Your task to perform on an android device: Open wifi settings Image 0: 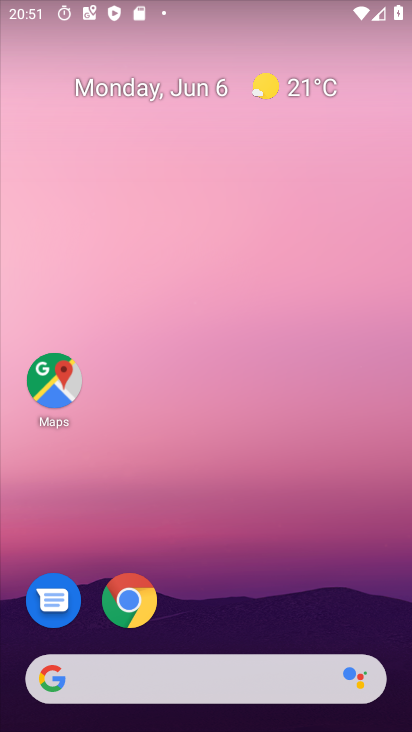
Step 0: drag from (266, 587) to (242, 27)
Your task to perform on an android device: Open wifi settings Image 1: 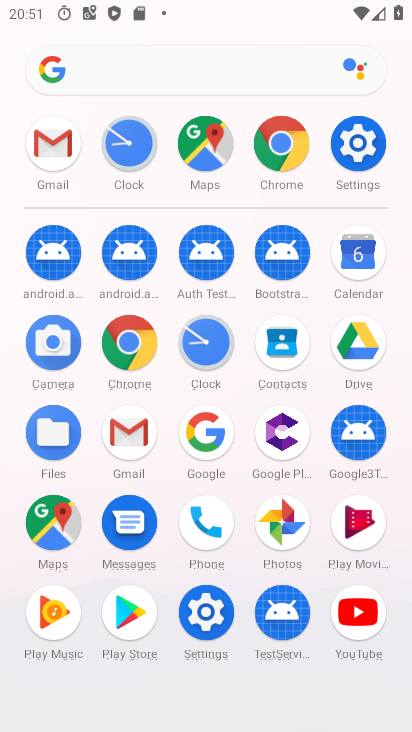
Step 1: click (202, 611)
Your task to perform on an android device: Open wifi settings Image 2: 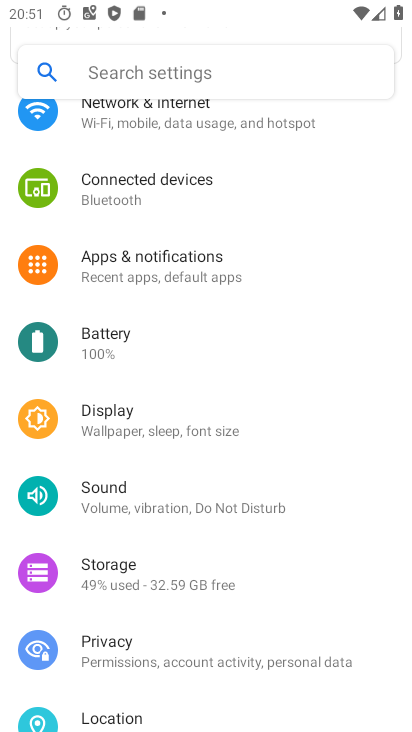
Step 2: drag from (299, 195) to (291, 609)
Your task to perform on an android device: Open wifi settings Image 3: 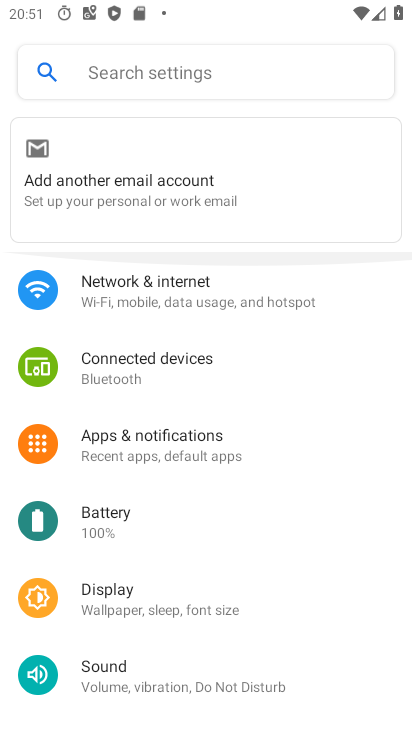
Step 3: click (221, 301)
Your task to perform on an android device: Open wifi settings Image 4: 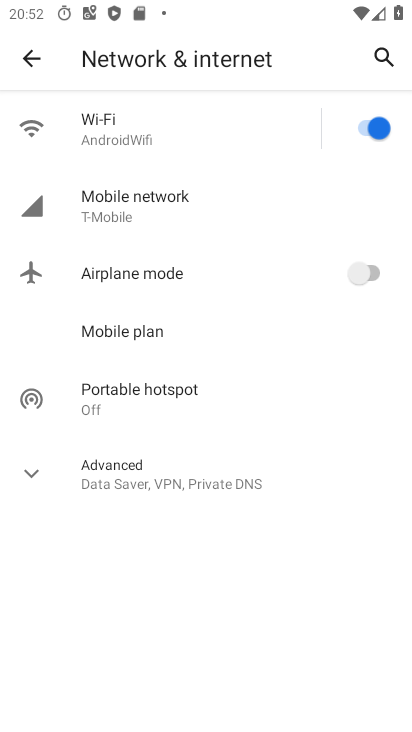
Step 4: click (31, 449)
Your task to perform on an android device: Open wifi settings Image 5: 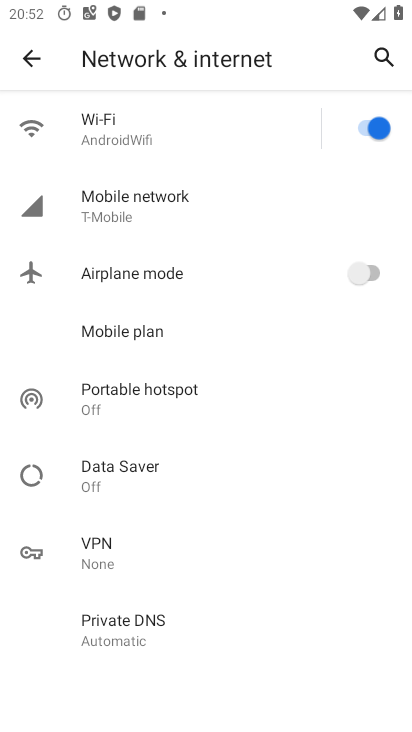
Step 5: click (170, 143)
Your task to perform on an android device: Open wifi settings Image 6: 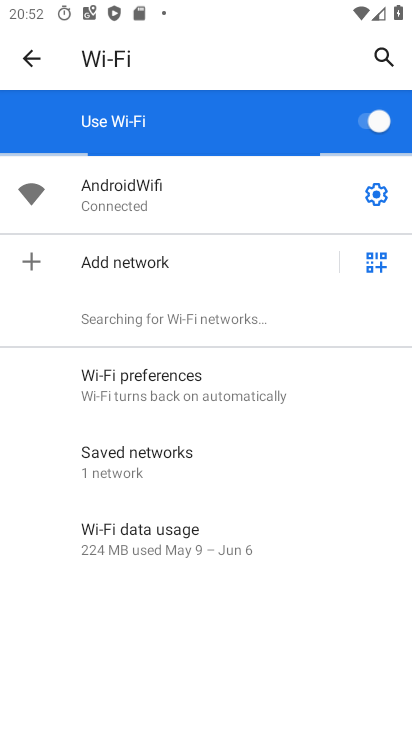
Step 6: task complete